Your task to perform on an android device: Go to Maps Image 0: 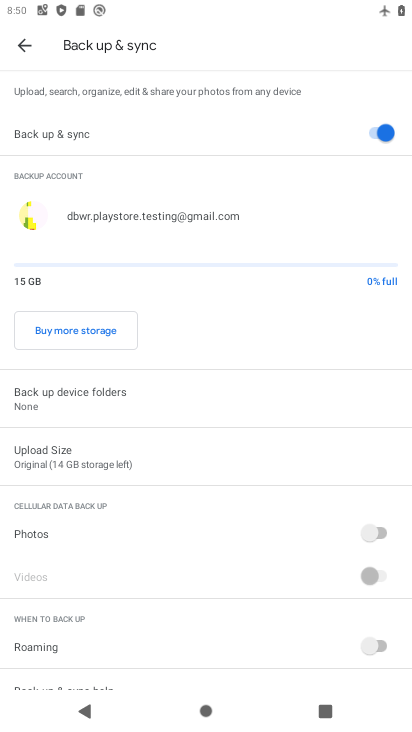
Step 0: press home button
Your task to perform on an android device: Go to Maps Image 1: 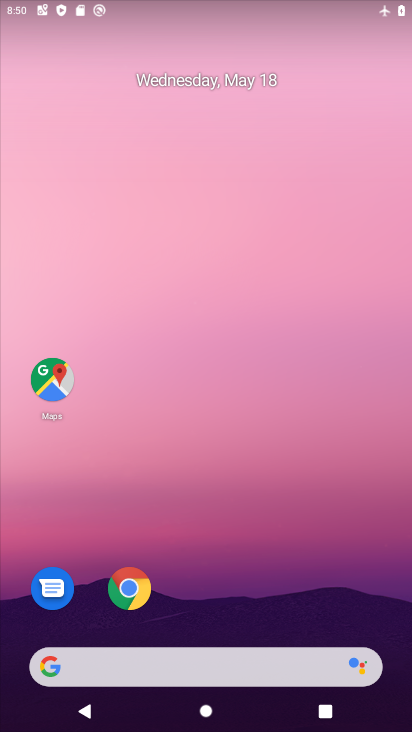
Step 1: click (53, 380)
Your task to perform on an android device: Go to Maps Image 2: 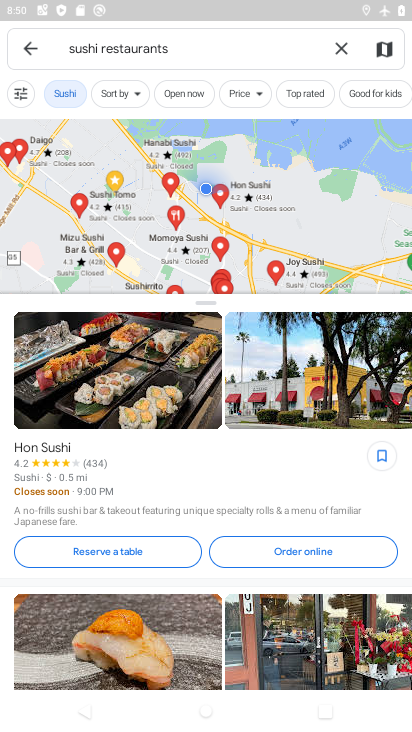
Step 2: task complete